Your task to perform on an android device: change the clock display to analog Image 0: 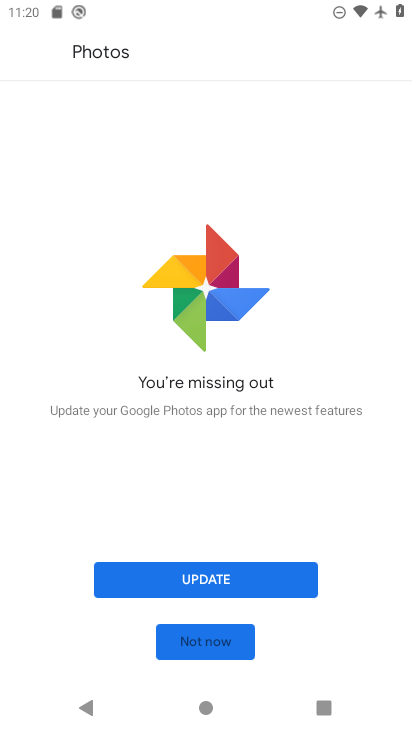
Step 0: press home button
Your task to perform on an android device: change the clock display to analog Image 1: 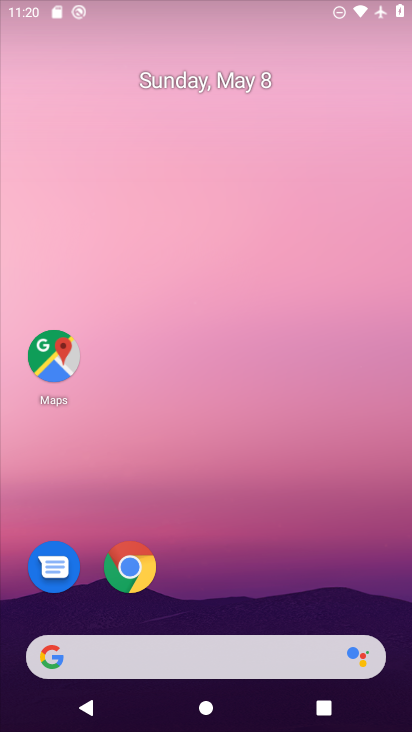
Step 1: drag from (346, 592) to (351, 181)
Your task to perform on an android device: change the clock display to analog Image 2: 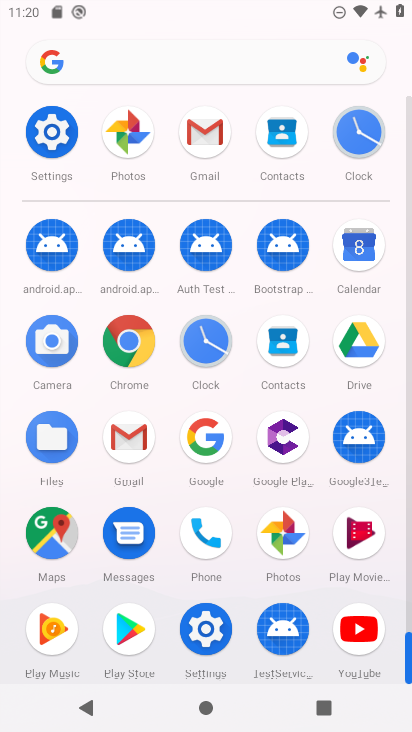
Step 2: click (358, 148)
Your task to perform on an android device: change the clock display to analog Image 3: 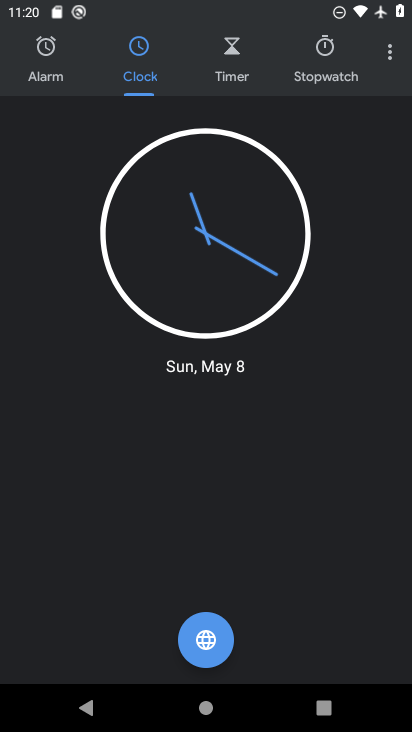
Step 3: click (388, 58)
Your task to perform on an android device: change the clock display to analog Image 4: 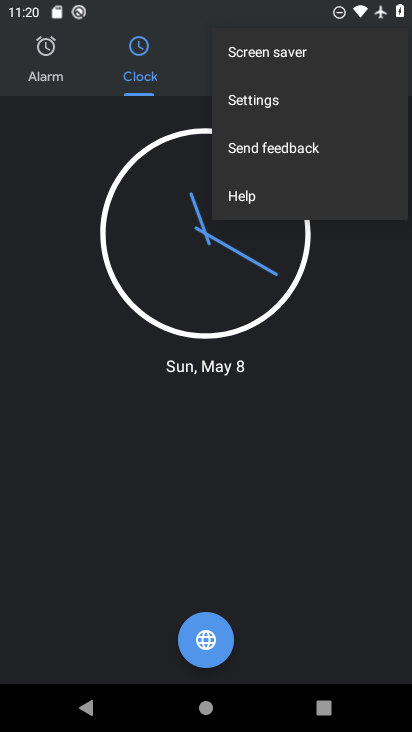
Step 4: click (278, 110)
Your task to perform on an android device: change the clock display to analog Image 5: 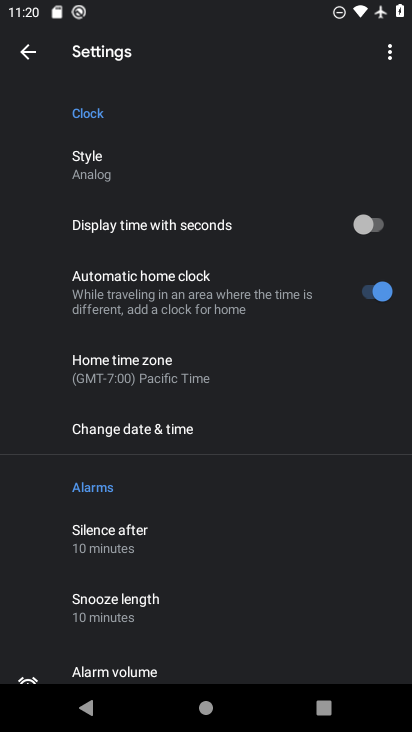
Step 5: click (100, 174)
Your task to perform on an android device: change the clock display to analog Image 6: 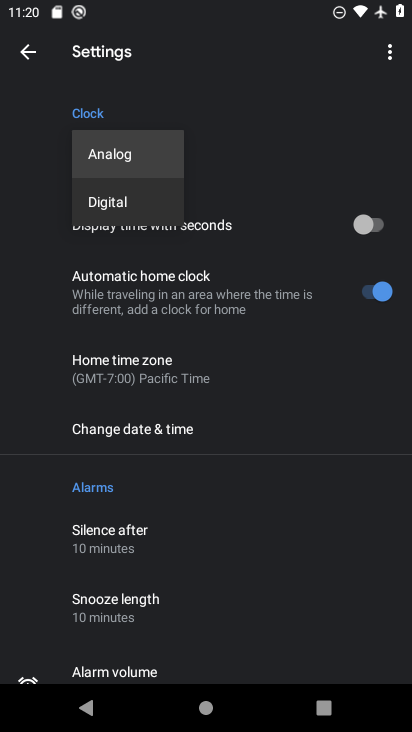
Step 6: task complete